Your task to perform on an android device: change alarm snooze length Image 0: 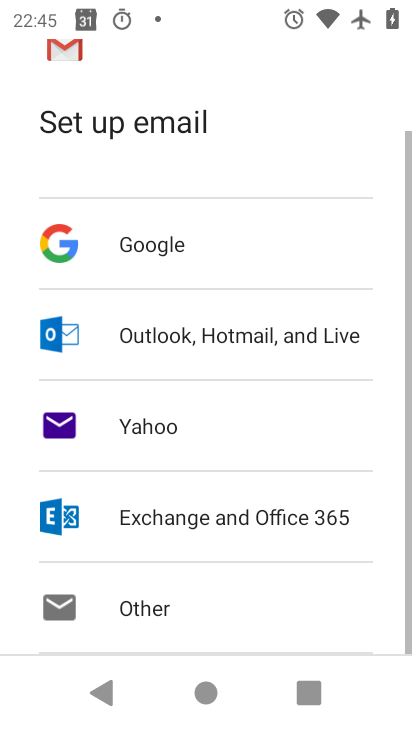
Step 0: press home button
Your task to perform on an android device: change alarm snooze length Image 1: 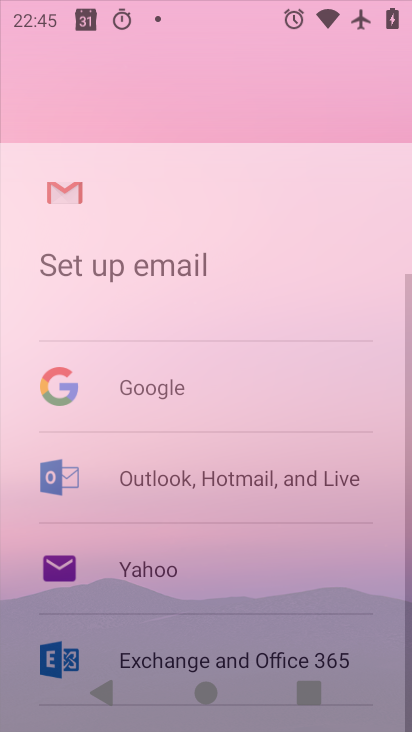
Step 1: drag from (171, 409) to (199, 257)
Your task to perform on an android device: change alarm snooze length Image 2: 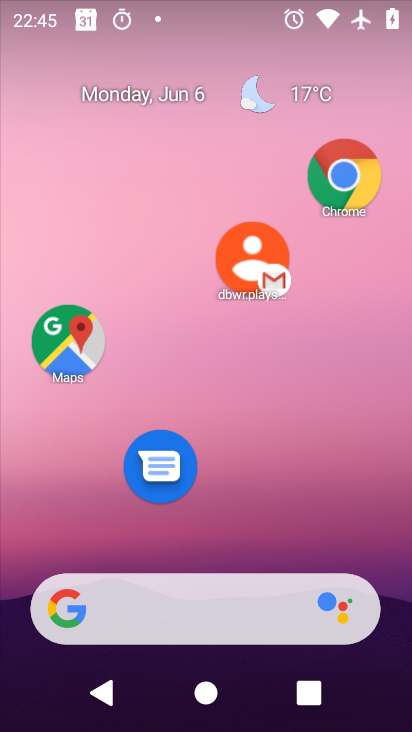
Step 2: drag from (205, 472) to (205, 212)
Your task to perform on an android device: change alarm snooze length Image 3: 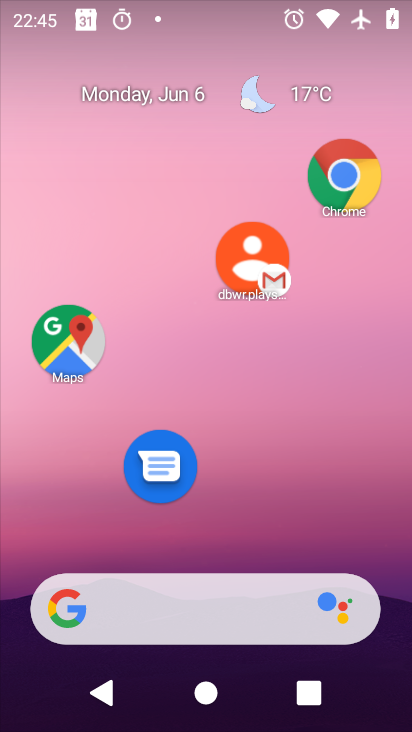
Step 3: drag from (228, 498) to (202, 203)
Your task to perform on an android device: change alarm snooze length Image 4: 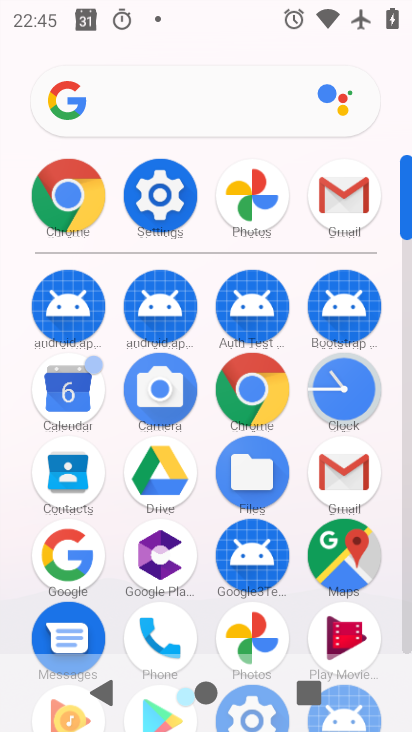
Step 4: click (334, 381)
Your task to perform on an android device: change alarm snooze length Image 5: 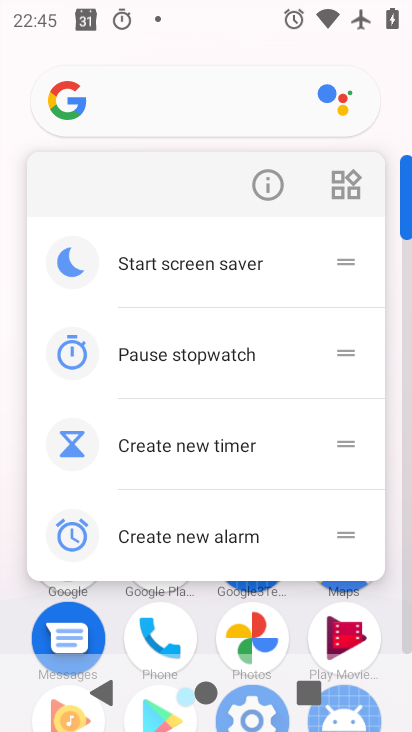
Step 5: click (259, 192)
Your task to perform on an android device: change alarm snooze length Image 6: 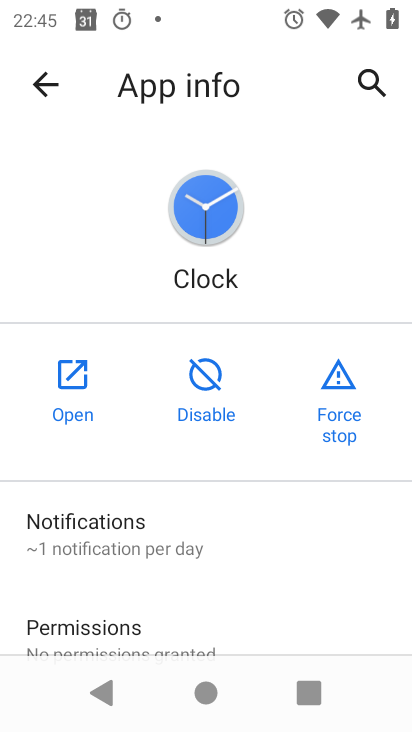
Step 6: click (50, 371)
Your task to perform on an android device: change alarm snooze length Image 7: 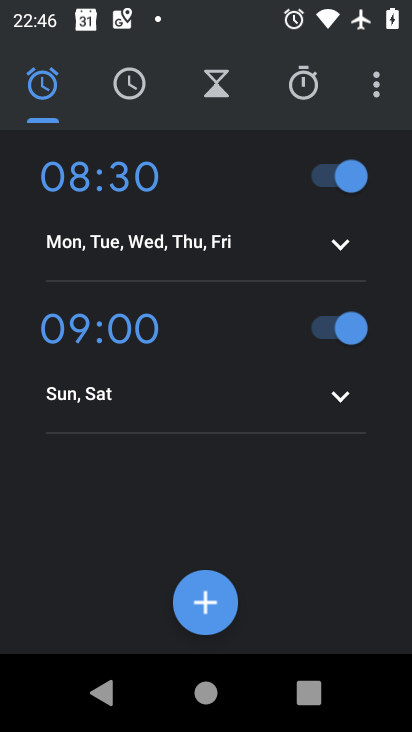
Step 7: click (366, 84)
Your task to perform on an android device: change alarm snooze length Image 8: 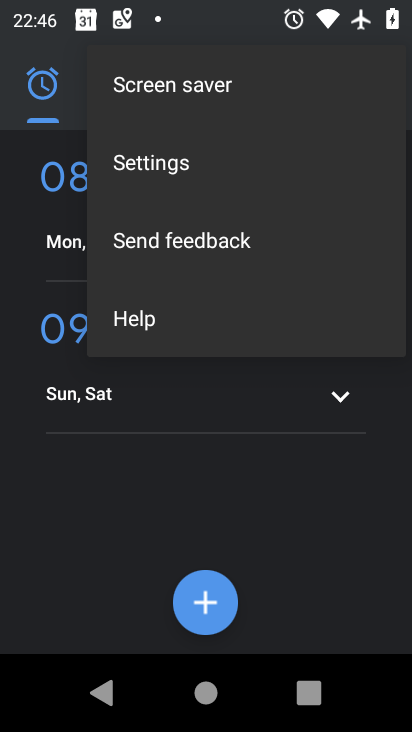
Step 8: click (193, 167)
Your task to perform on an android device: change alarm snooze length Image 9: 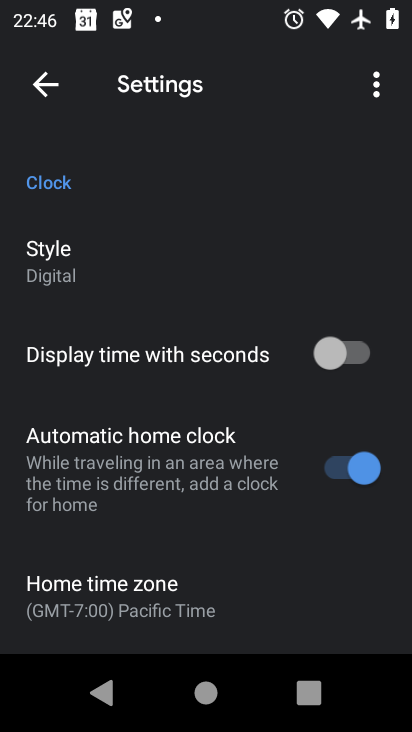
Step 9: drag from (176, 459) to (265, 23)
Your task to perform on an android device: change alarm snooze length Image 10: 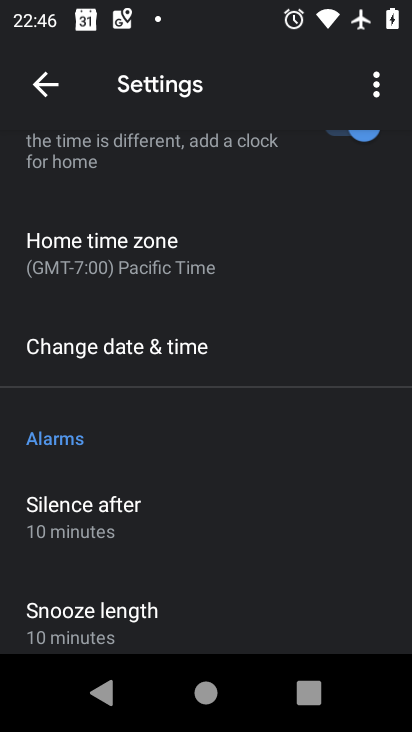
Step 10: click (104, 624)
Your task to perform on an android device: change alarm snooze length Image 11: 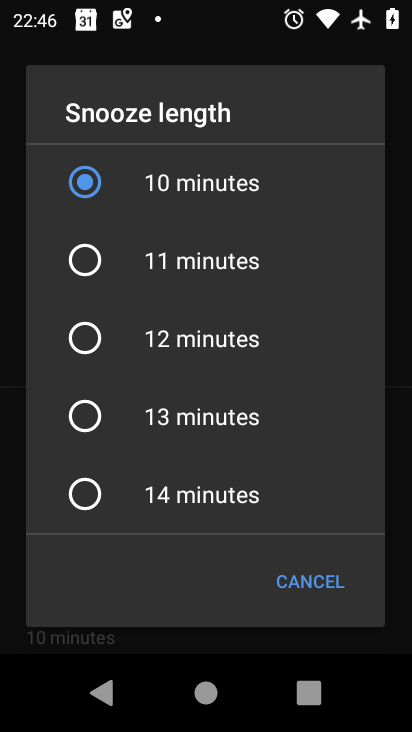
Step 11: click (187, 414)
Your task to perform on an android device: change alarm snooze length Image 12: 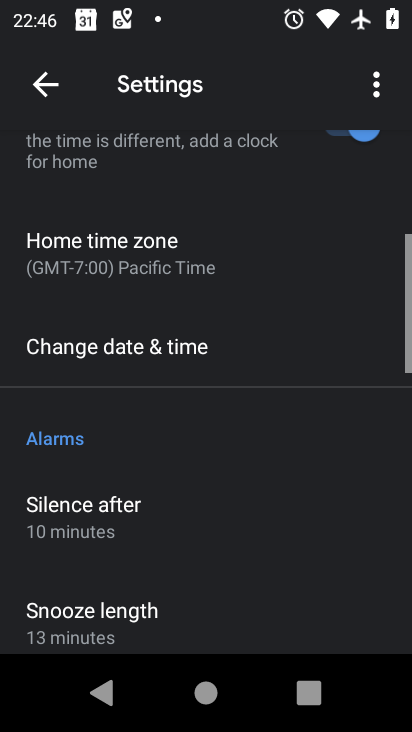
Step 12: task complete